Your task to perform on an android device: Check the weather Image 0: 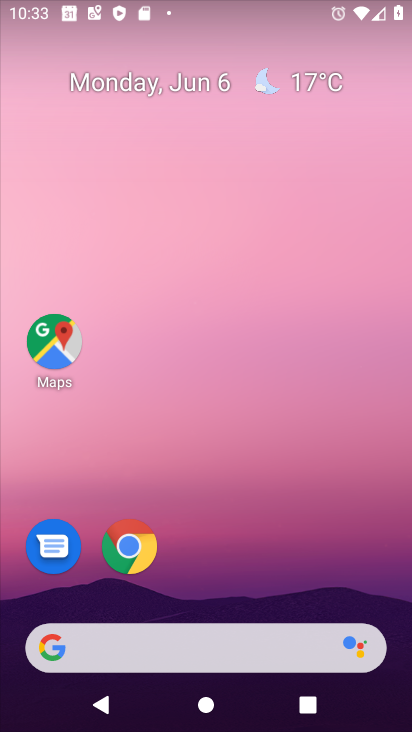
Step 0: click (324, 76)
Your task to perform on an android device: Check the weather Image 1: 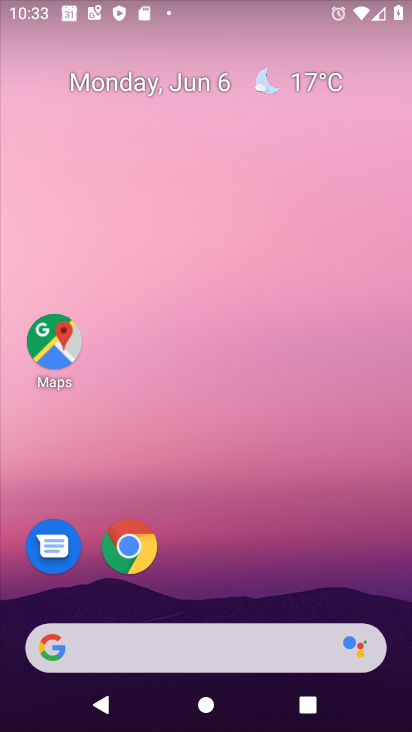
Step 1: click (325, 76)
Your task to perform on an android device: Check the weather Image 2: 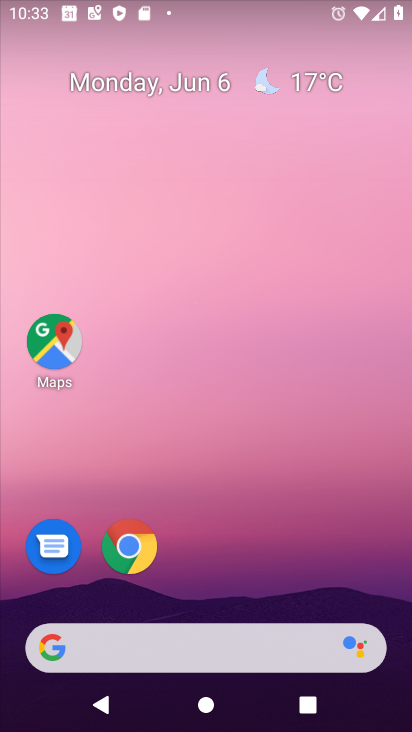
Step 2: click (151, 654)
Your task to perform on an android device: Check the weather Image 3: 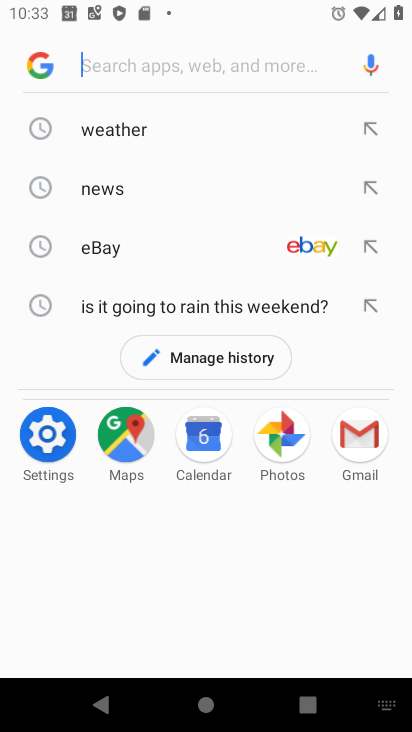
Step 3: click (136, 142)
Your task to perform on an android device: Check the weather Image 4: 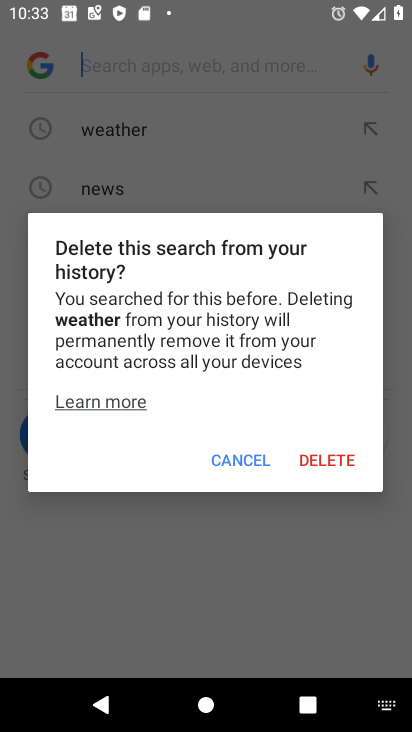
Step 4: click (237, 461)
Your task to perform on an android device: Check the weather Image 5: 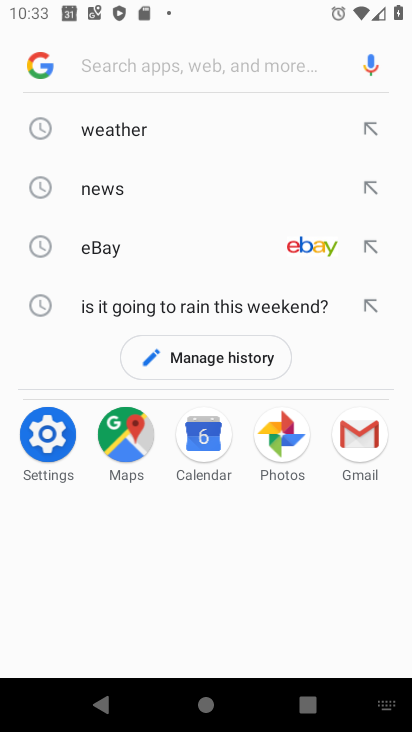
Step 5: click (98, 138)
Your task to perform on an android device: Check the weather Image 6: 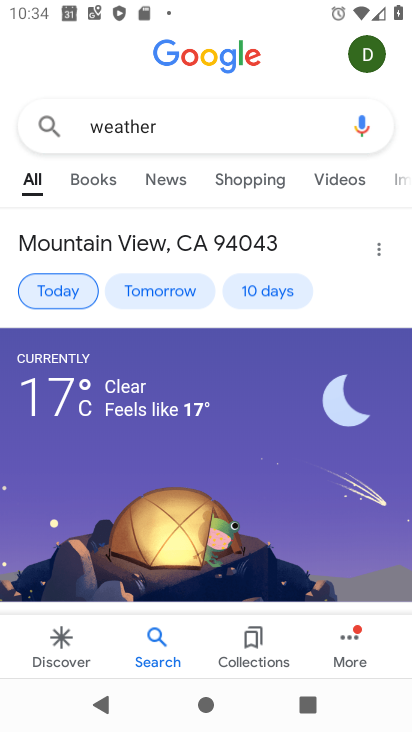
Step 6: task complete